Your task to perform on an android device: What's the weather going to be tomorrow? Image 0: 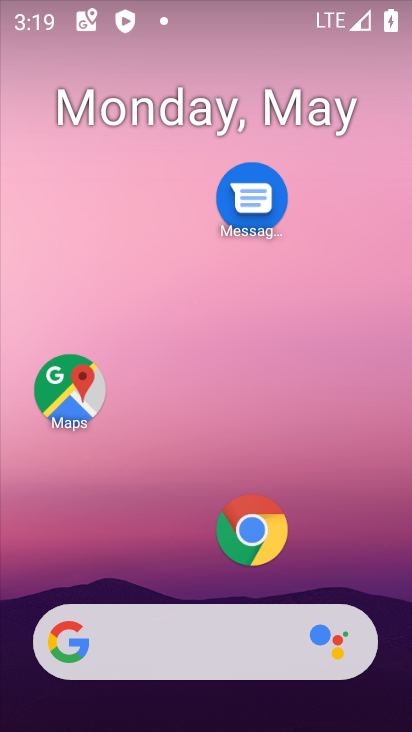
Step 0: click (170, 643)
Your task to perform on an android device: What's the weather going to be tomorrow? Image 1: 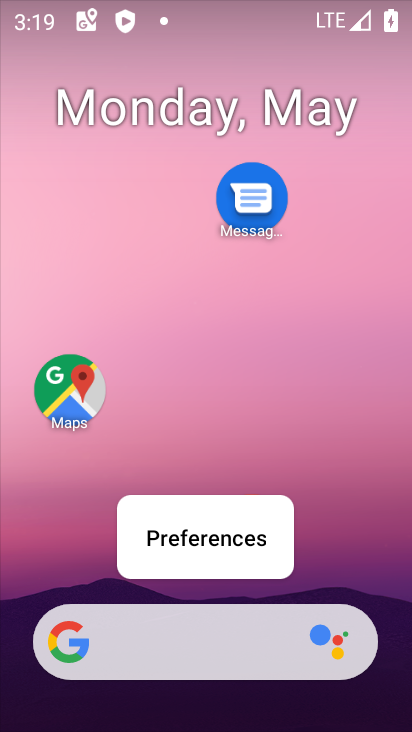
Step 1: click (174, 639)
Your task to perform on an android device: What's the weather going to be tomorrow? Image 2: 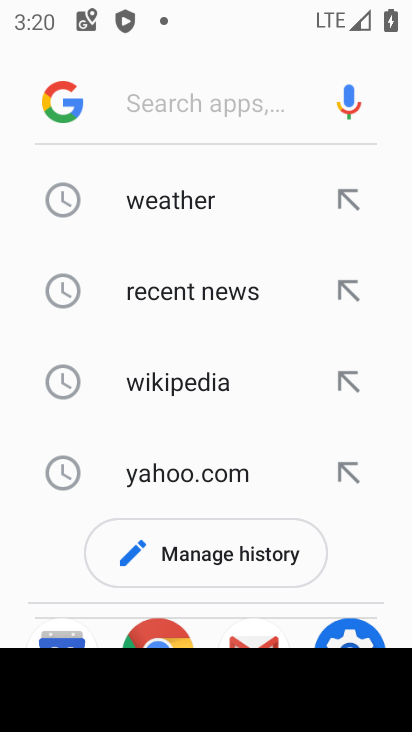
Step 2: click (196, 205)
Your task to perform on an android device: What's the weather going to be tomorrow? Image 3: 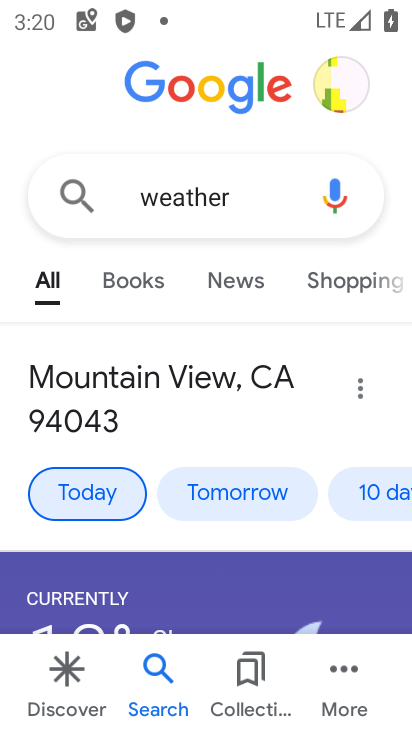
Step 3: click (235, 495)
Your task to perform on an android device: What's the weather going to be tomorrow? Image 4: 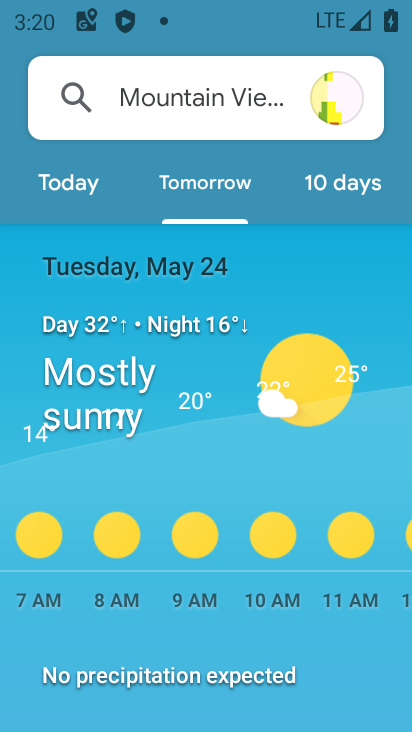
Step 4: task complete